Your task to perform on an android device: turn on wifi Image 0: 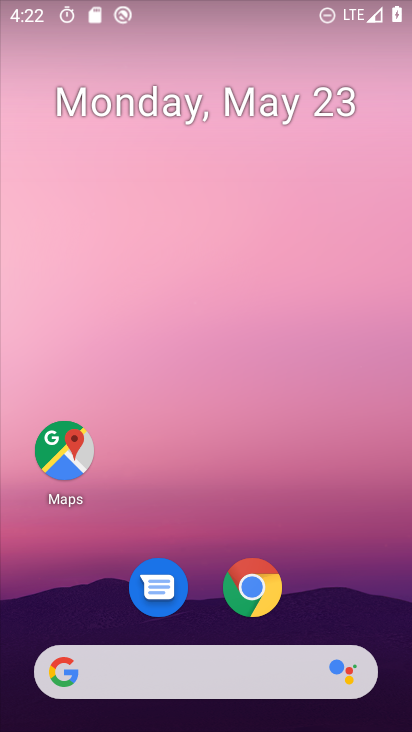
Step 0: drag from (211, 557) to (185, 5)
Your task to perform on an android device: turn on wifi Image 1: 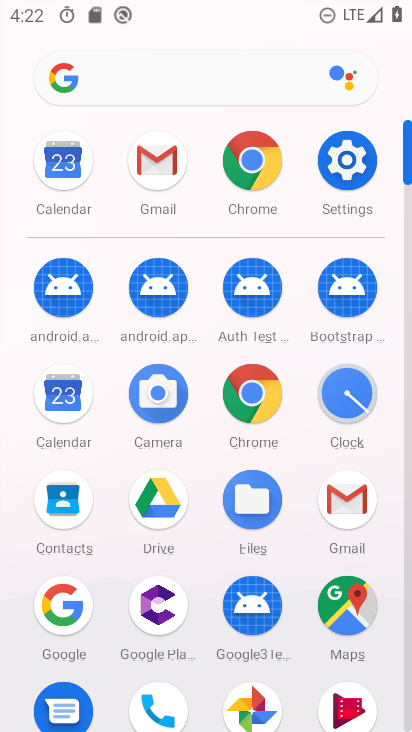
Step 1: click (352, 179)
Your task to perform on an android device: turn on wifi Image 2: 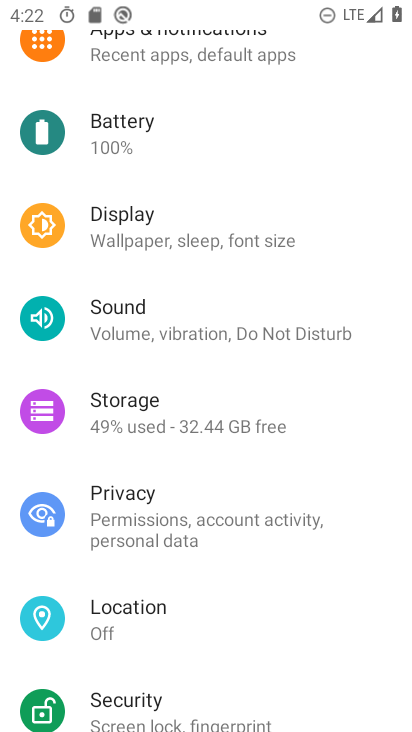
Step 2: drag from (201, 379) to (205, 677)
Your task to perform on an android device: turn on wifi Image 3: 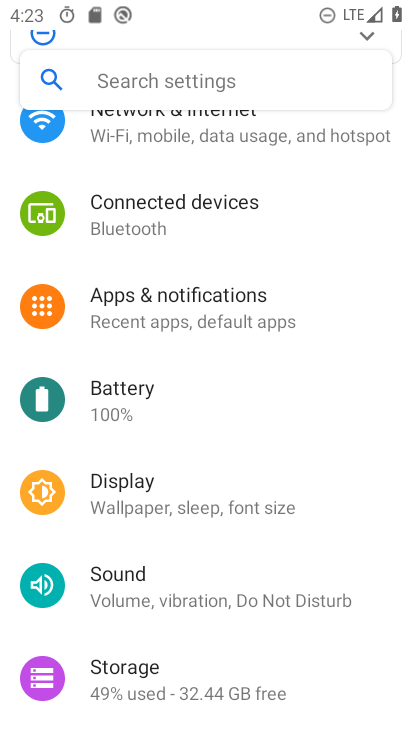
Step 3: drag from (190, 324) to (210, 647)
Your task to perform on an android device: turn on wifi Image 4: 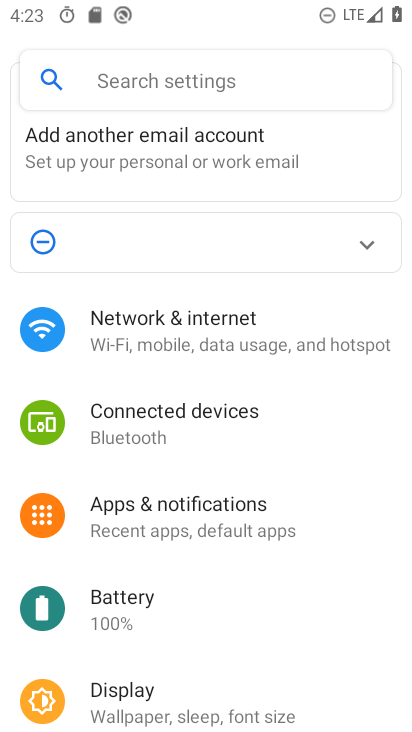
Step 4: click (205, 333)
Your task to perform on an android device: turn on wifi Image 5: 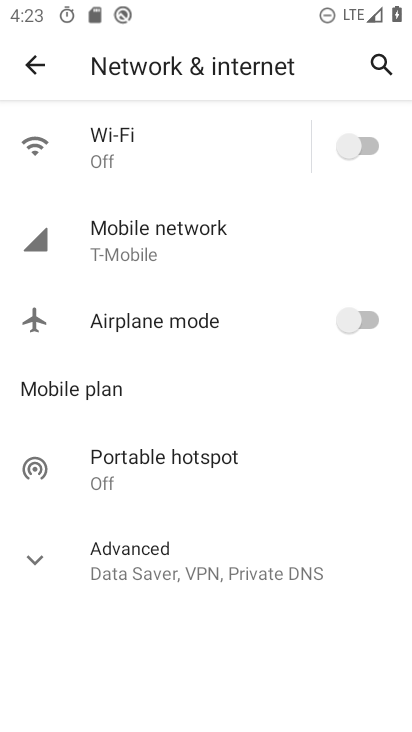
Step 5: click (366, 133)
Your task to perform on an android device: turn on wifi Image 6: 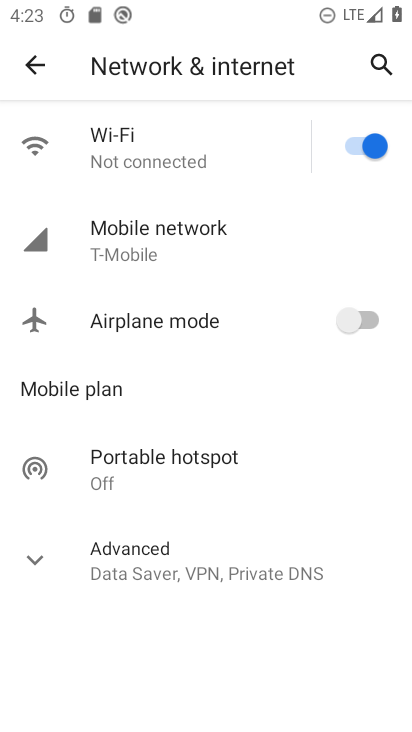
Step 6: task complete